Your task to perform on an android device: Go to Amazon Image 0: 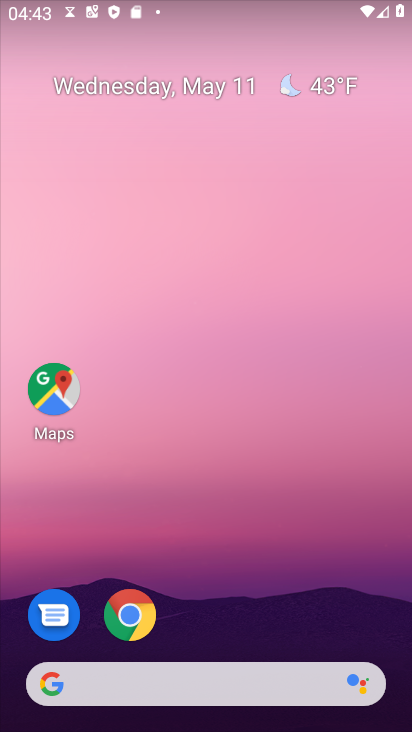
Step 0: drag from (223, 555) to (210, 22)
Your task to perform on an android device: Go to Amazon Image 1: 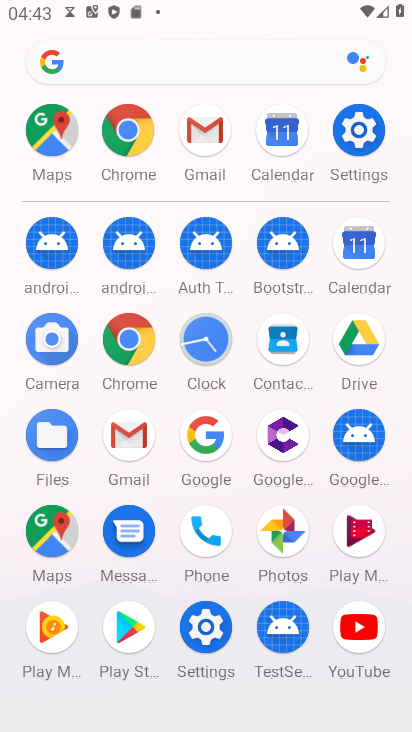
Step 1: drag from (4, 540) to (7, 188)
Your task to perform on an android device: Go to Amazon Image 2: 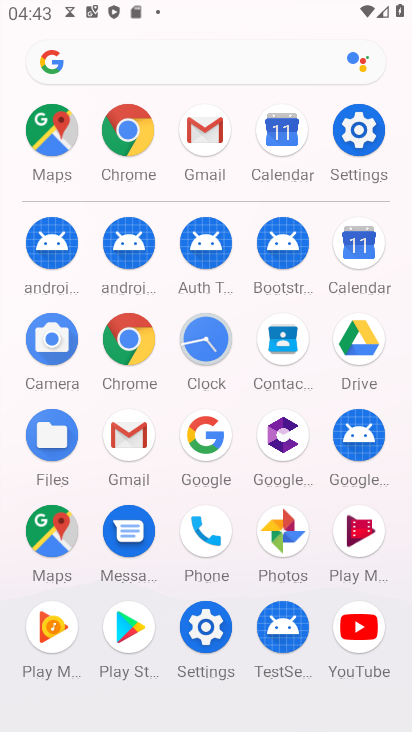
Step 2: click (128, 333)
Your task to perform on an android device: Go to Amazon Image 3: 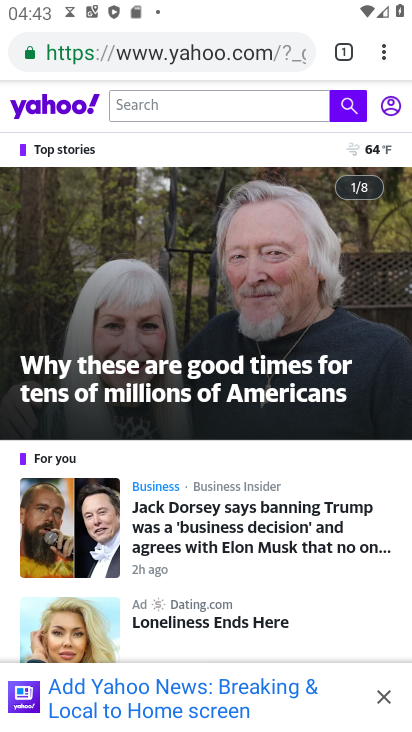
Step 3: click (190, 55)
Your task to perform on an android device: Go to Amazon Image 4: 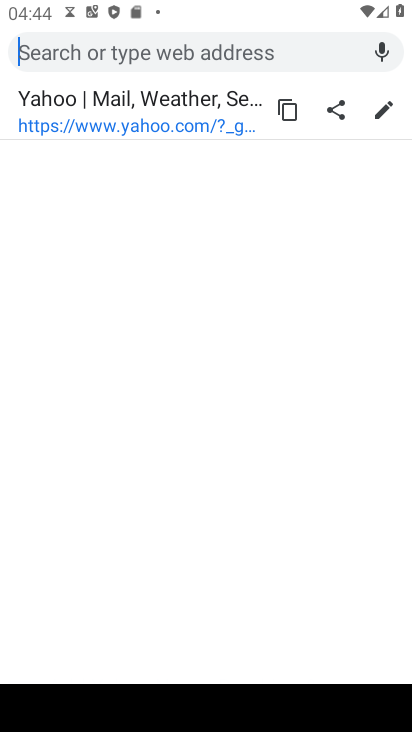
Step 4: type "Amazon"
Your task to perform on an android device: Go to Amazon Image 5: 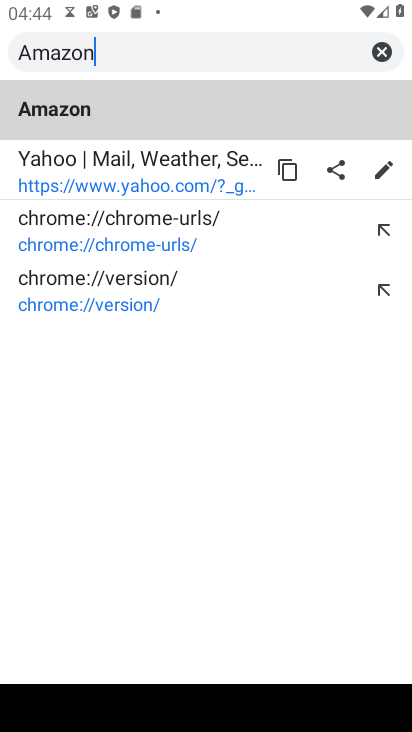
Step 5: type ""
Your task to perform on an android device: Go to Amazon Image 6: 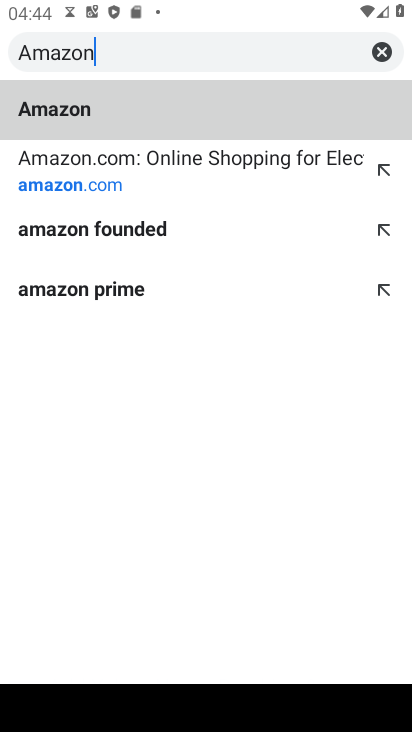
Step 6: click (114, 150)
Your task to perform on an android device: Go to Amazon Image 7: 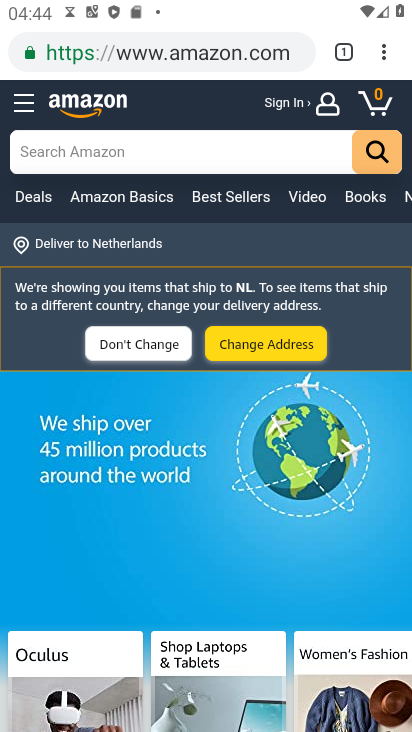
Step 7: task complete